Your task to perform on an android device: View the shopping cart on amazon. Add beats solo 3 to the cart on amazon, then select checkout. Image 0: 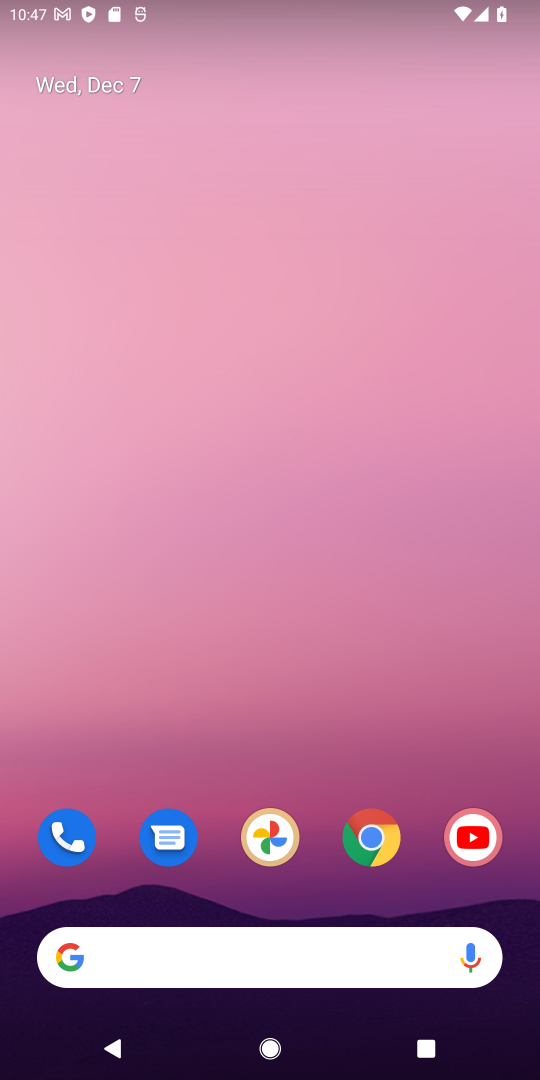
Step 0: click (378, 845)
Your task to perform on an android device: View the shopping cart on amazon. Add beats solo 3 to the cart on amazon, then select checkout. Image 1: 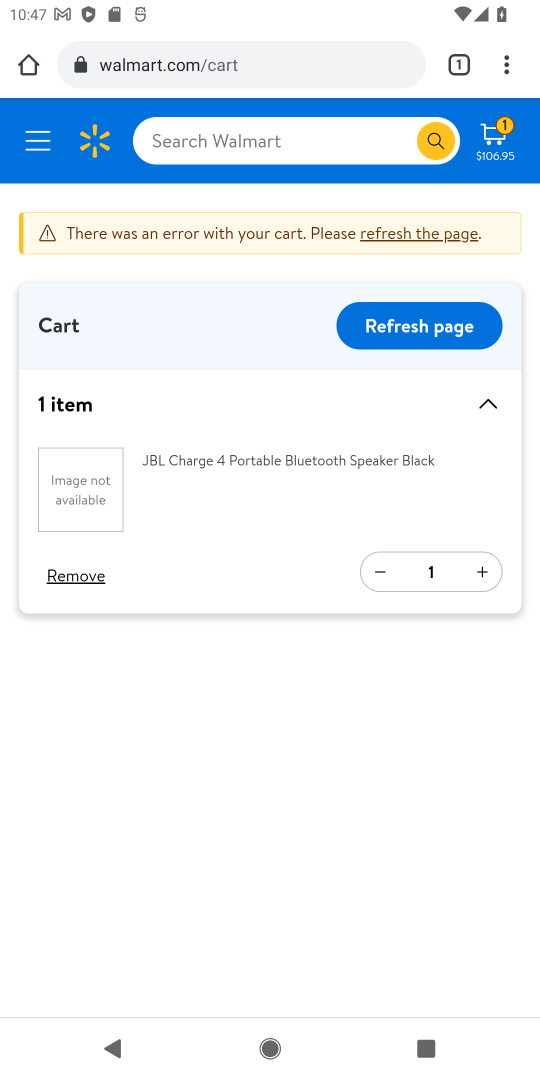
Step 1: click (361, 61)
Your task to perform on an android device: View the shopping cart on amazon. Add beats solo 3 to the cart on amazon, then select checkout. Image 2: 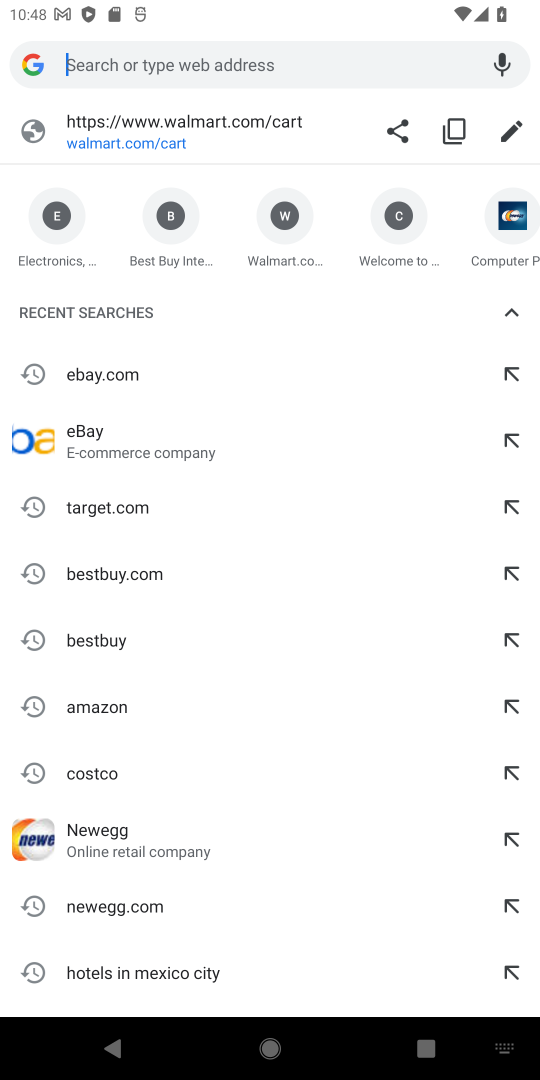
Step 2: press enter
Your task to perform on an android device: View the shopping cart on amazon. Add beats solo 3 to the cart on amazon, then select checkout. Image 3: 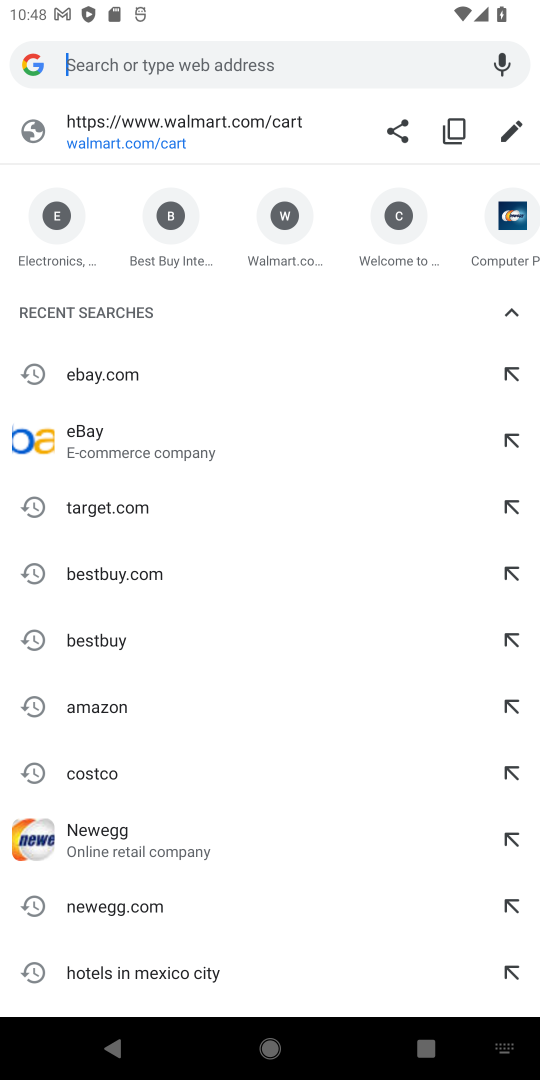
Step 3: type "amazon"
Your task to perform on an android device: View the shopping cart on amazon. Add beats solo 3 to the cart on amazon, then select checkout. Image 4: 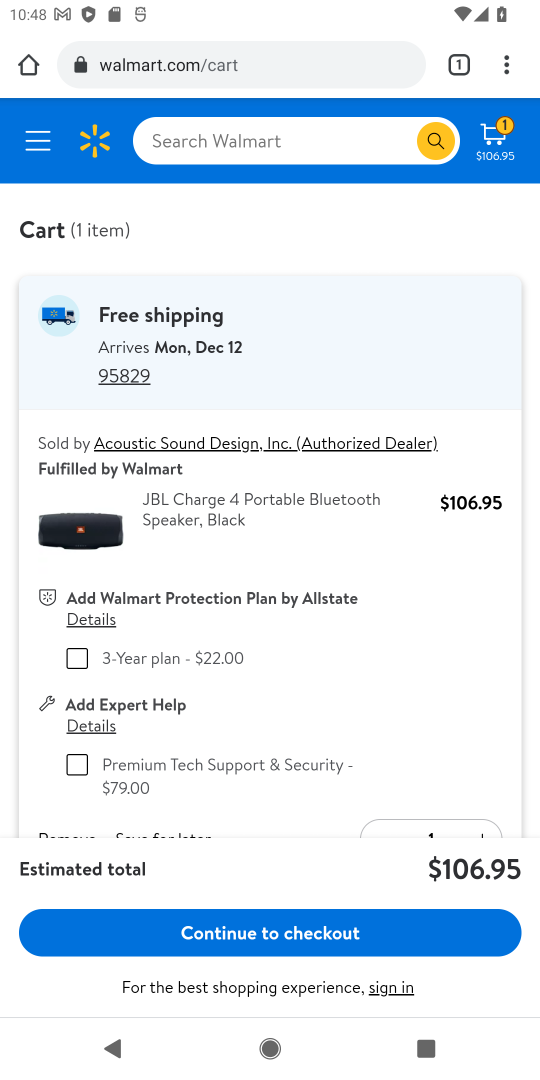
Step 4: click (313, 58)
Your task to perform on an android device: View the shopping cart on amazon. Add beats solo 3 to the cart on amazon, then select checkout. Image 5: 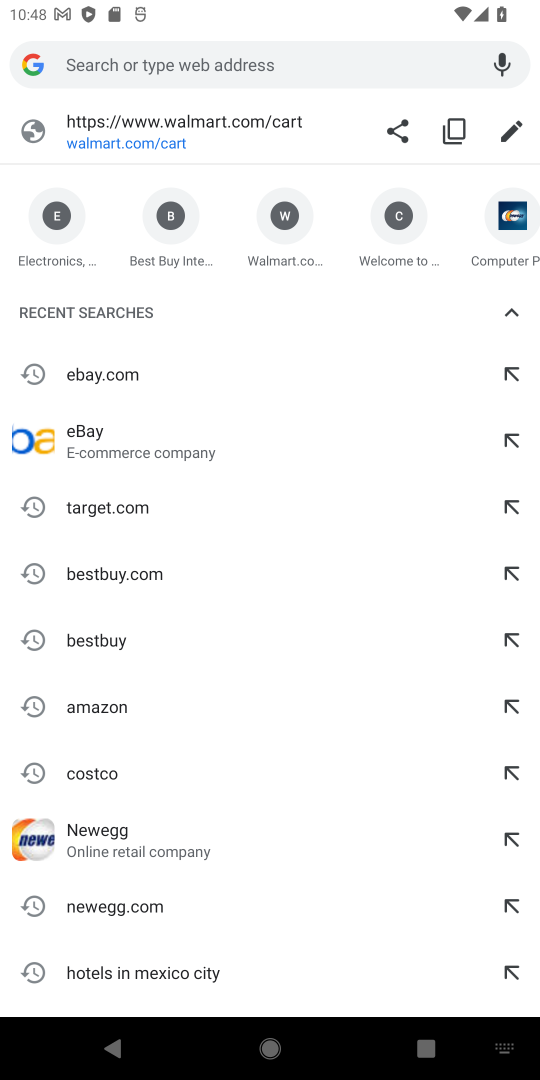
Step 5: type "amazon"
Your task to perform on an android device: View the shopping cart on amazon. Add beats solo 3 to the cart on amazon, then select checkout. Image 6: 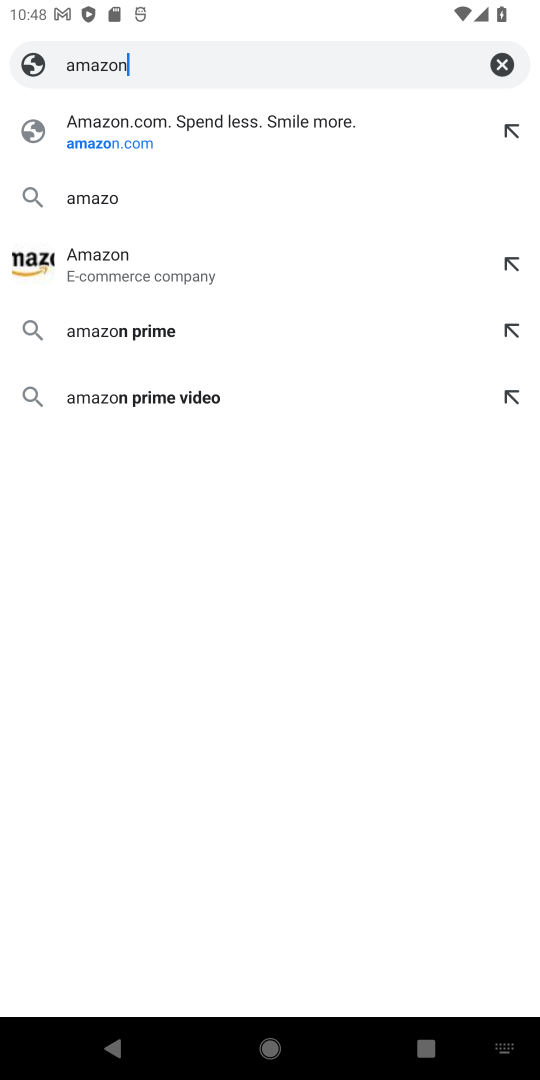
Step 6: press enter
Your task to perform on an android device: View the shopping cart on amazon. Add beats solo 3 to the cart on amazon, then select checkout. Image 7: 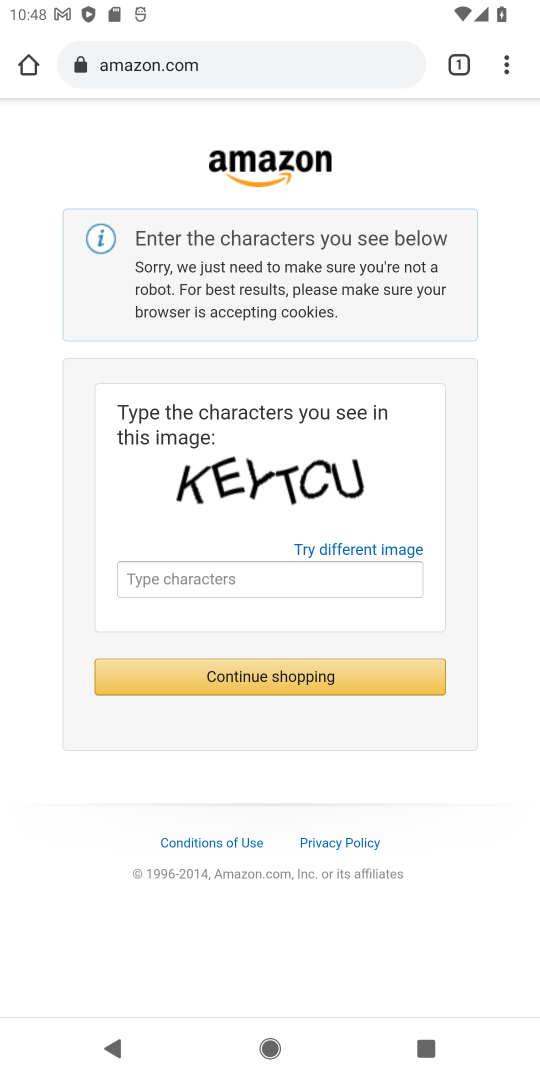
Step 7: press back button
Your task to perform on an android device: View the shopping cart on amazon. Add beats solo 3 to the cart on amazon, then select checkout. Image 8: 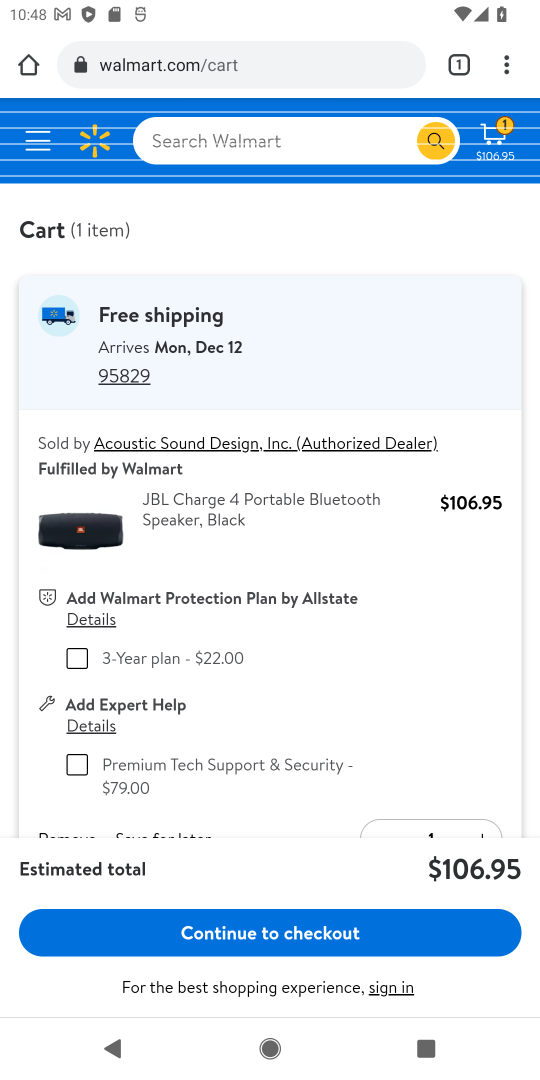
Step 8: click (263, 64)
Your task to perform on an android device: View the shopping cart on amazon. Add beats solo 3 to the cart on amazon, then select checkout. Image 9: 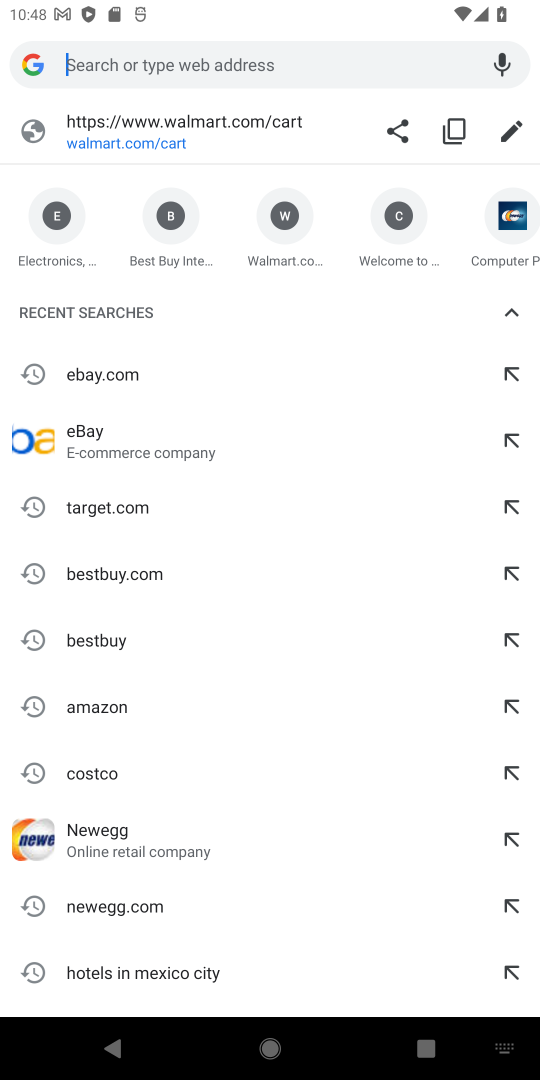
Step 9: click (105, 705)
Your task to perform on an android device: View the shopping cart on amazon. Add beats solo 3 to the cart on amazon, then select checkout. Image 10: 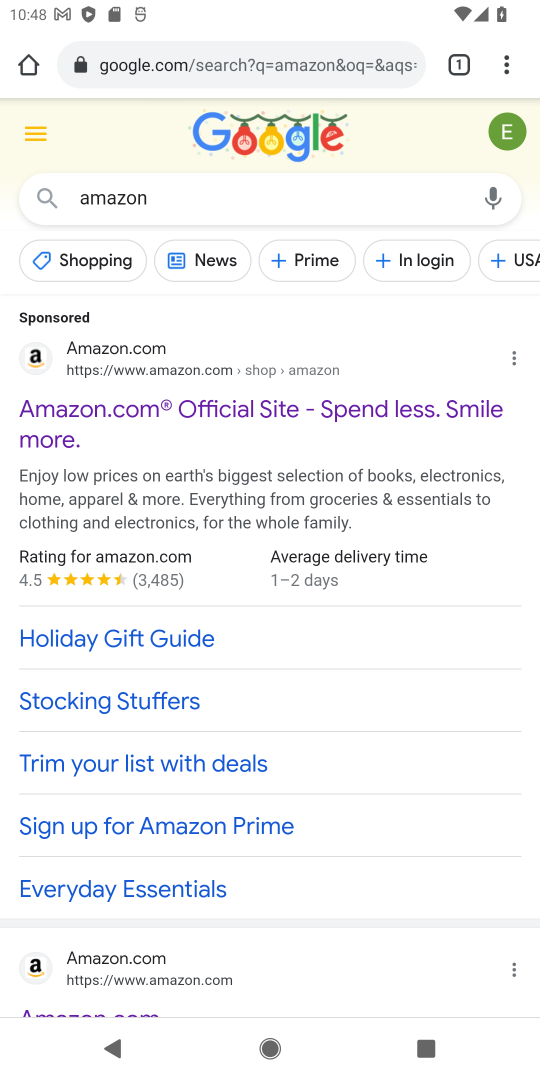
Step 10: click (170, 976)
Your task to perform on an android device: View the shopping cart on amazon. Add beats solo 3 to the cart on amazon, then select checkout. Image 11: 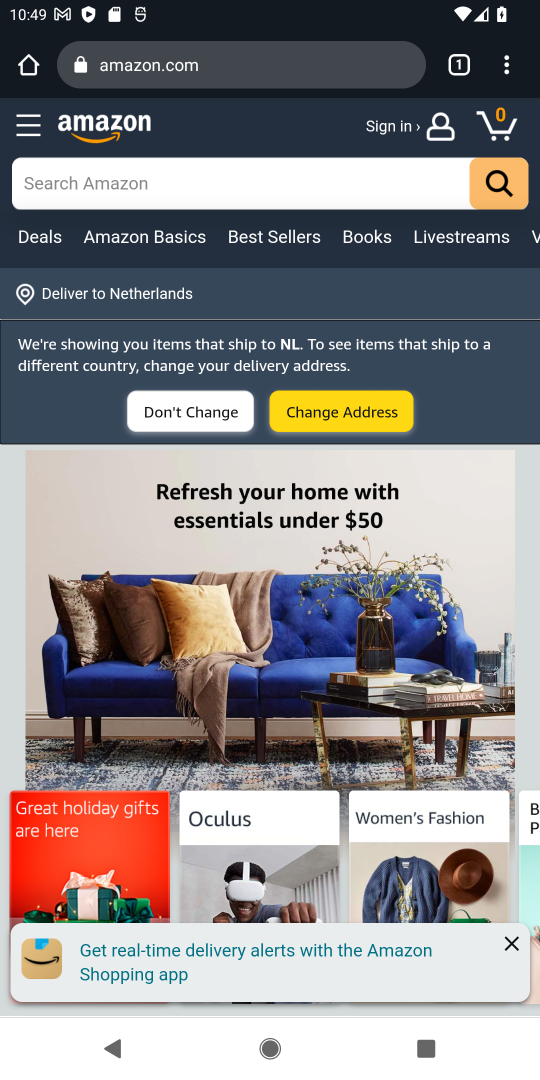
Step 11: click (308, 186)
Your task to perform on an android device: View the shopping cart on amazon. Add beats solo 3 to the cart on amazon, then select checkout. Image 12: 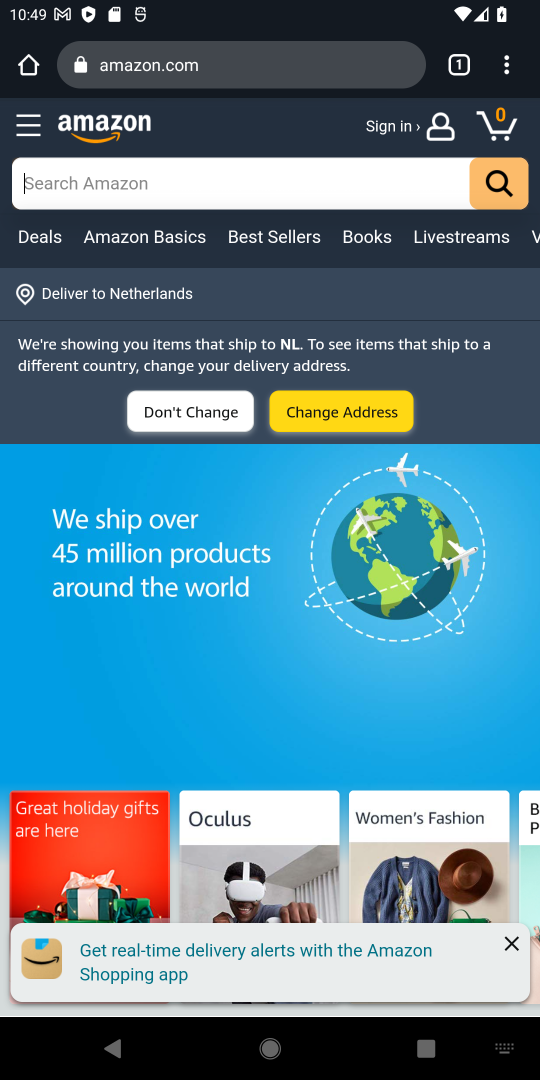
Step 12: press enter
Your task to perform on an android device: View the shopping cart on amazon. Add beats solo 3 to the cart on amazon, then select checkout. Image 13: 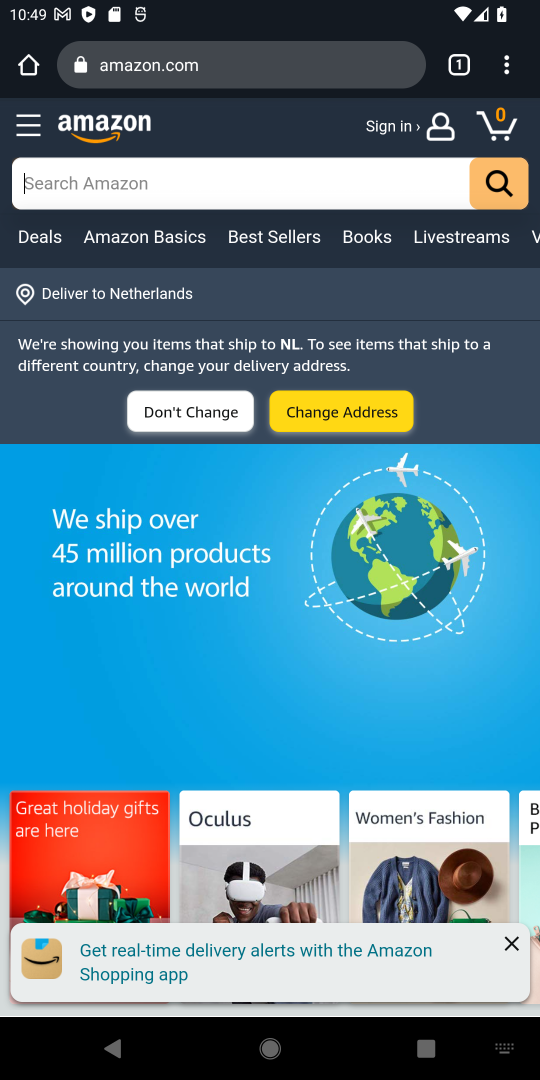
Step 13: type "beats solo 3"
Your task to perform on an android device: View the shopping cart on amazon. Add beats solo 3 to the cart on amazon, then select checkout. Image 14: 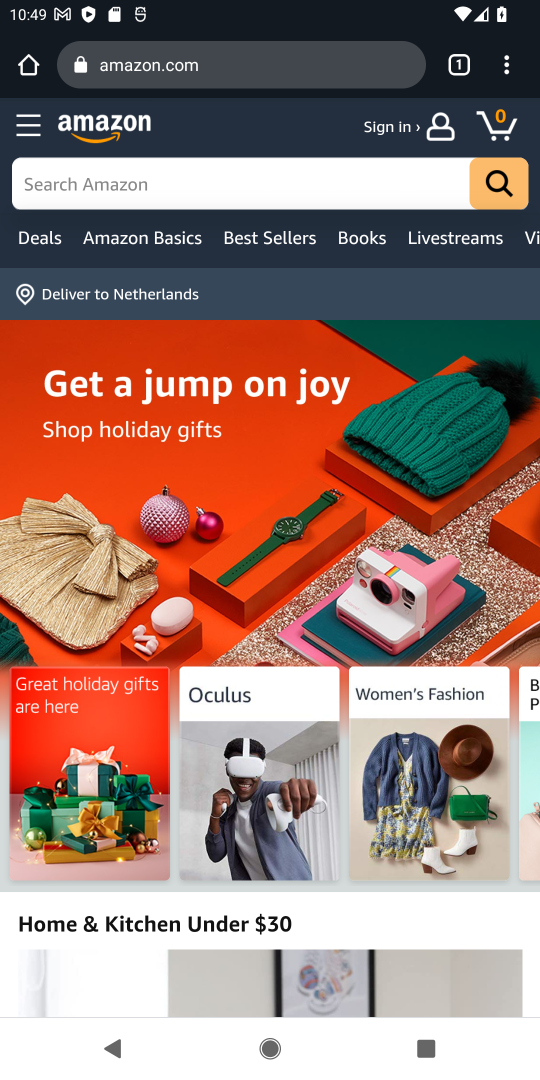
Step 14: click (330, 180)
Your task to perform on an android device: View the shopping cart on amazon. Add beats solo 3 to the cart on amazon, then select checkout. Image 15: 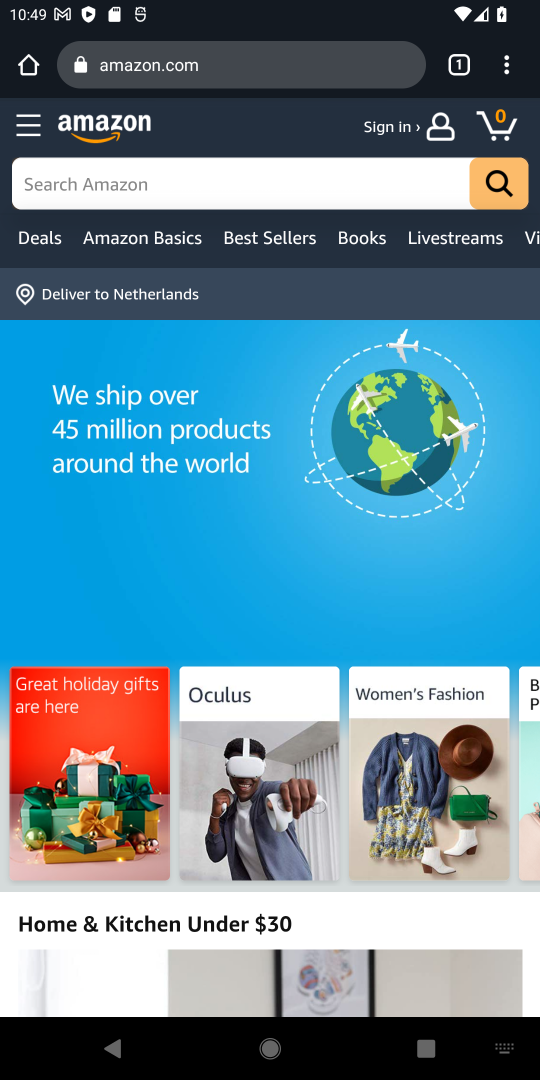
Step 15: type "beats solo 3"
Your task to perform on an android device: View the shopping cart on amazon. Add beats solo 3 to the cart on amazon, then select checkout. Image 16: 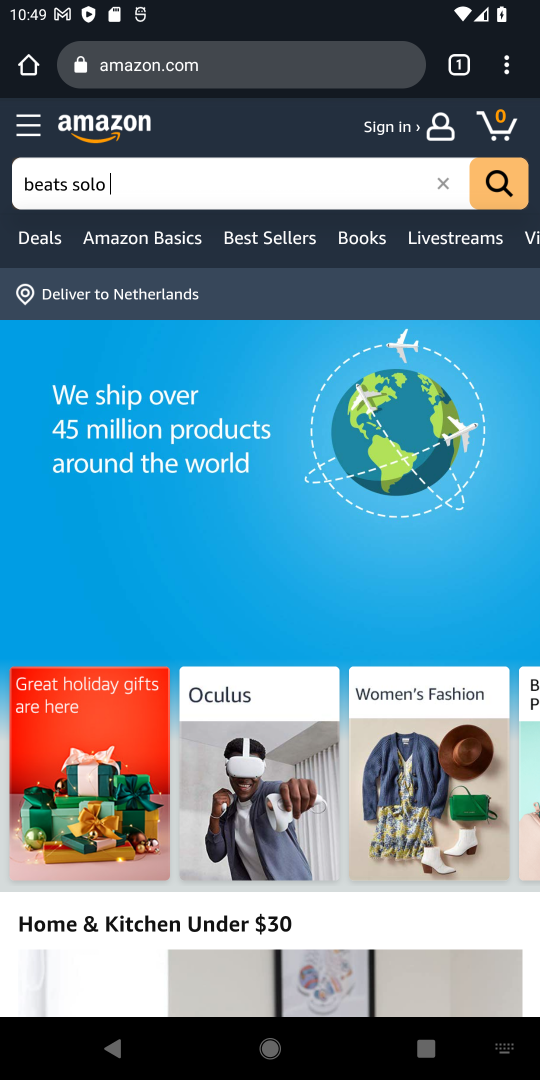
Step 16: press enter
Your task to perform on an android device: View the shopping cart on amazon. Add beats solo 3 to the cart on amazon, then select checkout. Image 17: 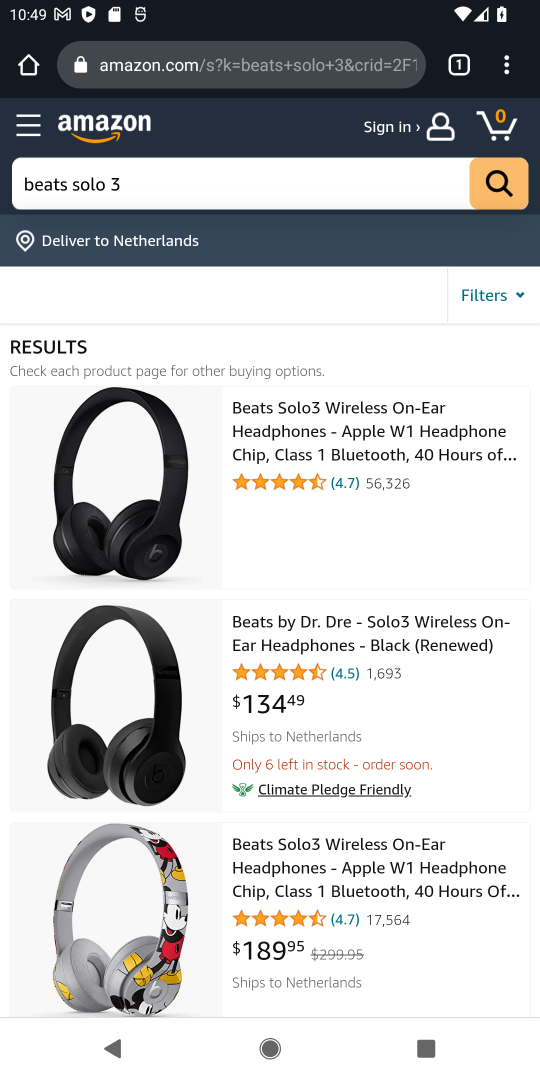
Step 17: click (95, 471)
Your task to perform on an android device: View the shopping cart on amazon. Add beats solo 3 to the cart on amazon, then select checkout. Image 18: 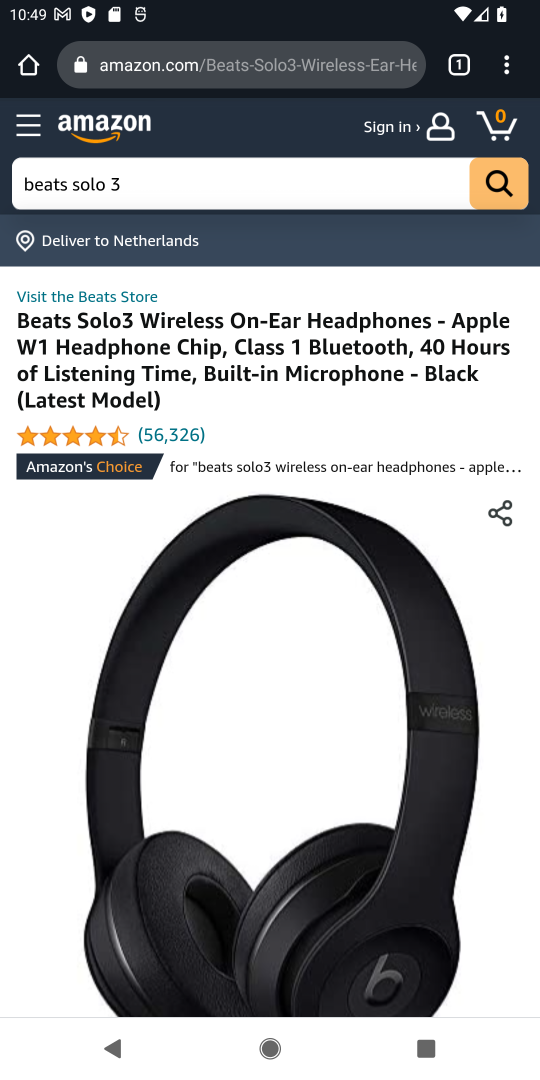
Step 18: drag from (357, 792) to (476, 166)
Your task to perform on an android device: View the shopping cart on amazon. Add beats solo 3 to the cart on amazon, then select checkout. Image 19: 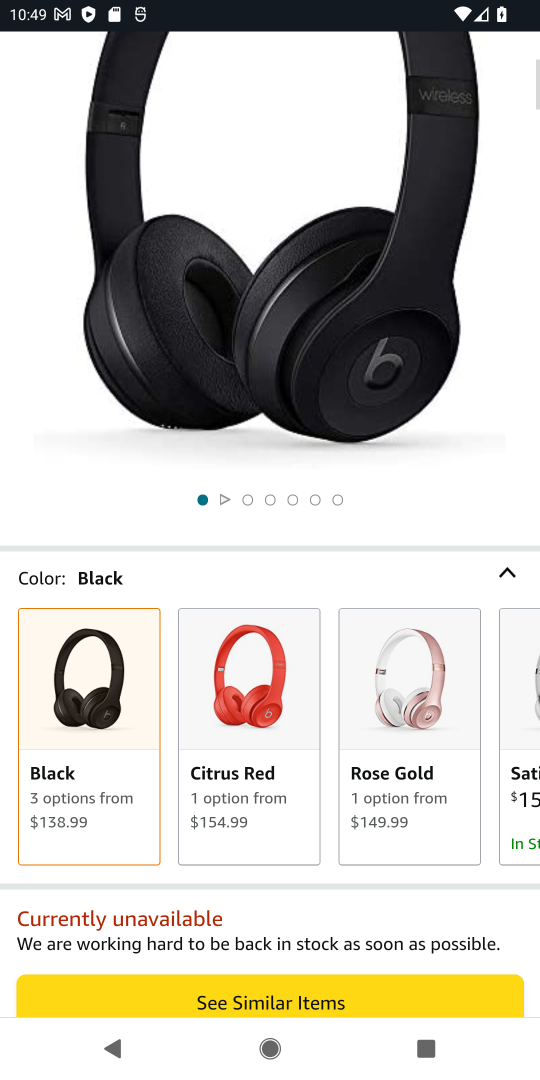
Step 19: drag from (340, 922) to (371, 486)
Your task to perform on an android device: View the shopping cart on amazon. Add beats solo 3 to the cart on amazon, then select checkout. Image 20: 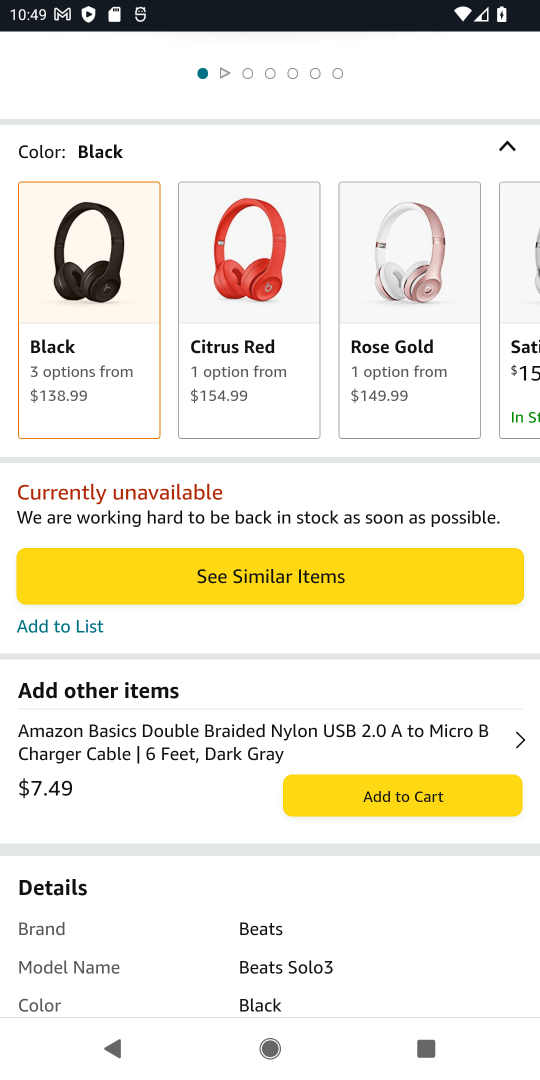
Step 20: press back button
Your task to perform on an android device: View the shopping cart on amazon. Add beats solo 3 to the cart on amazon, then select checkout. Image 21: 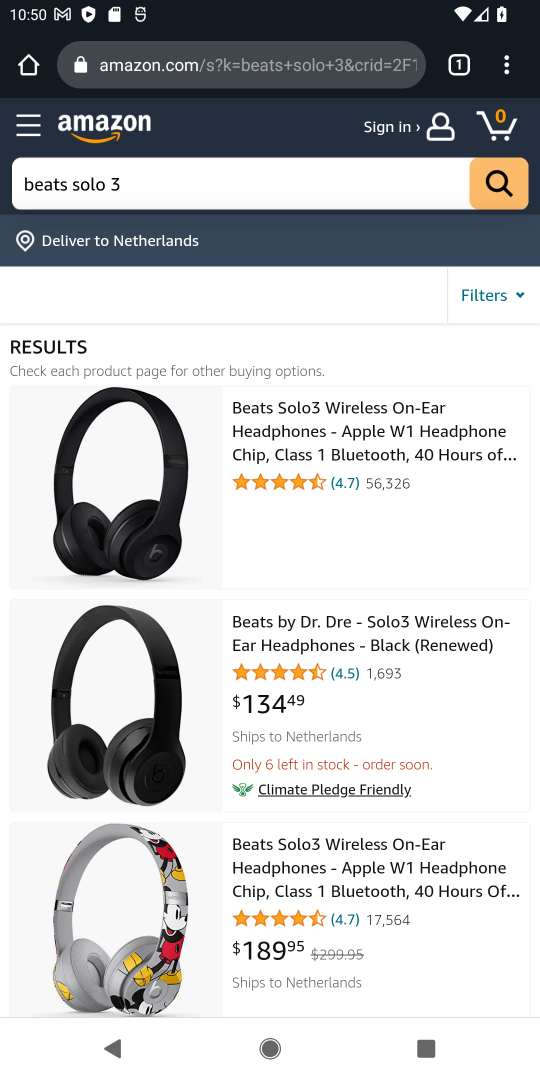
Step 21: click (102, 922)
Your task to perform on an android device: View the shopping cart on amazon. Add beats solo 3 to the cart on amazon, then select checkout. Image 22: 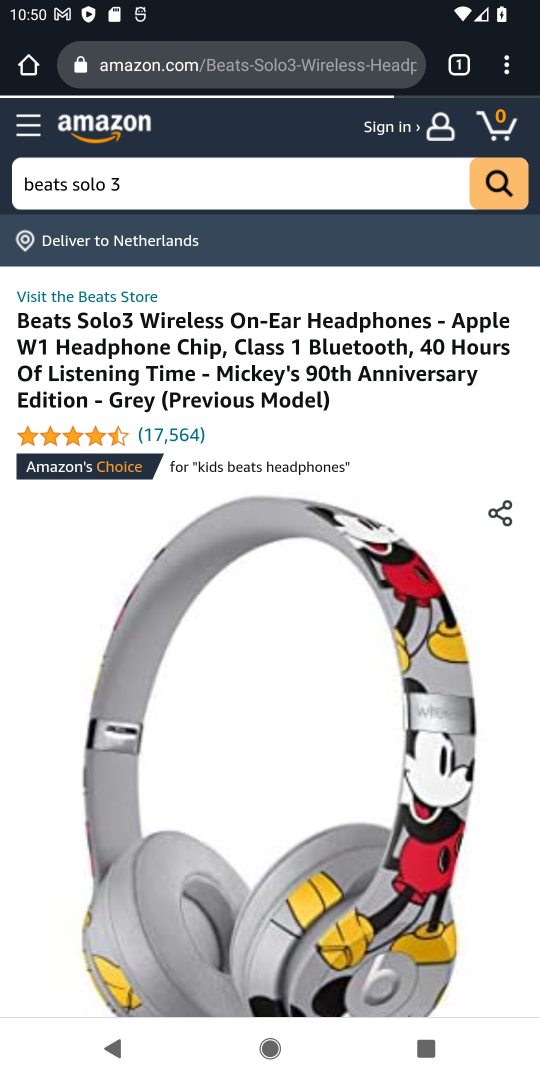
Step 22: drag from (359, 563) to (469, 264)
Your task to perform on an android device: View the shopping cart on amazon. Add beats solo 3 to the cart on amazon, then select checkout. Image 23: 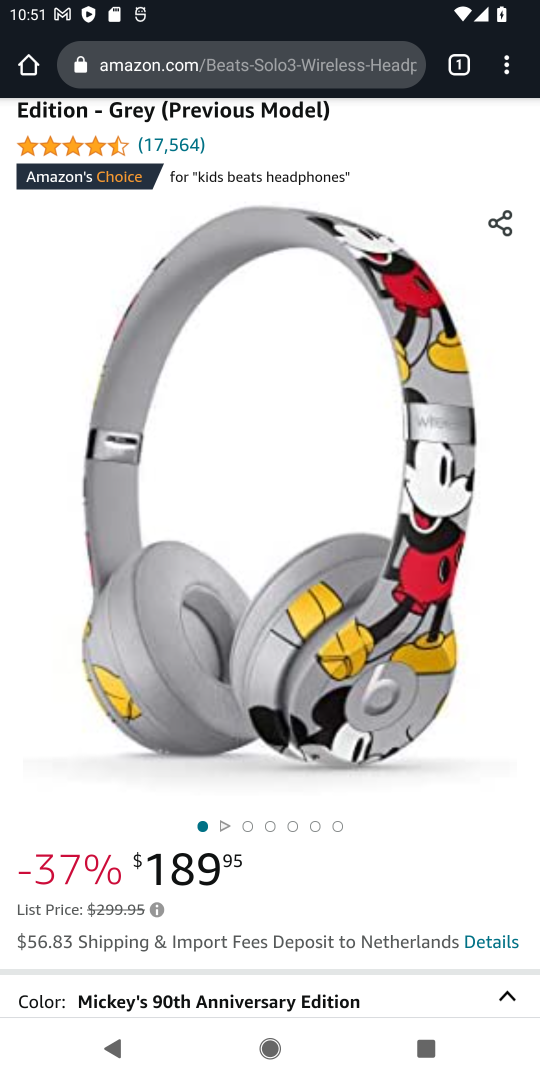
Step 23: drag from (354, 892) to (404, 249)
Your task to perform on an android device: View the shopping cart on amazon. Add beats solo 3 to the cart on amazon, then select checkout. Image 24: 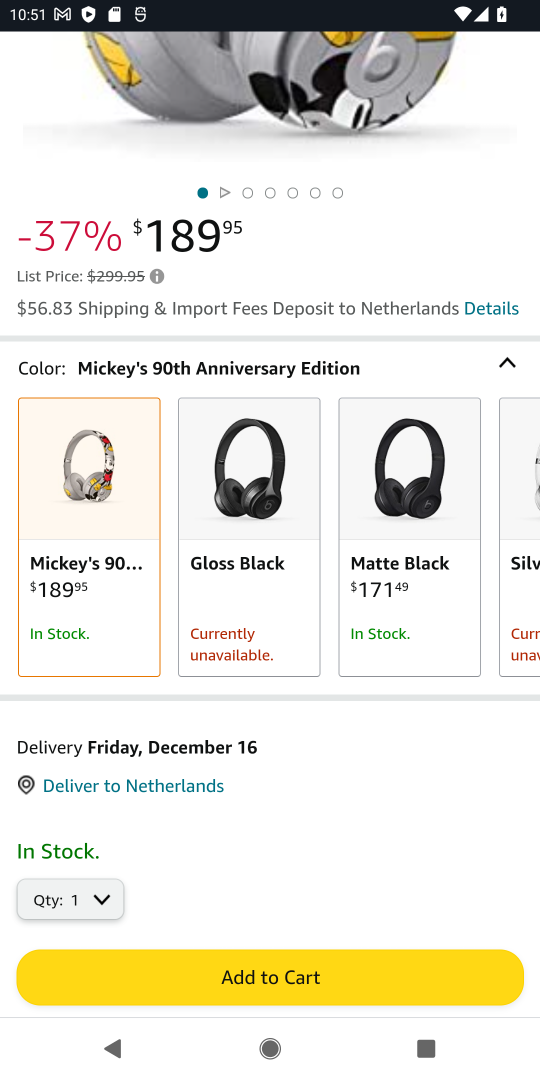
Step 24: click (372, 976)
Your task to perform on an android device: View the shopping cart on amazon. Add beats solo 3 to the cart on amazon, then select checkout. Image 25: 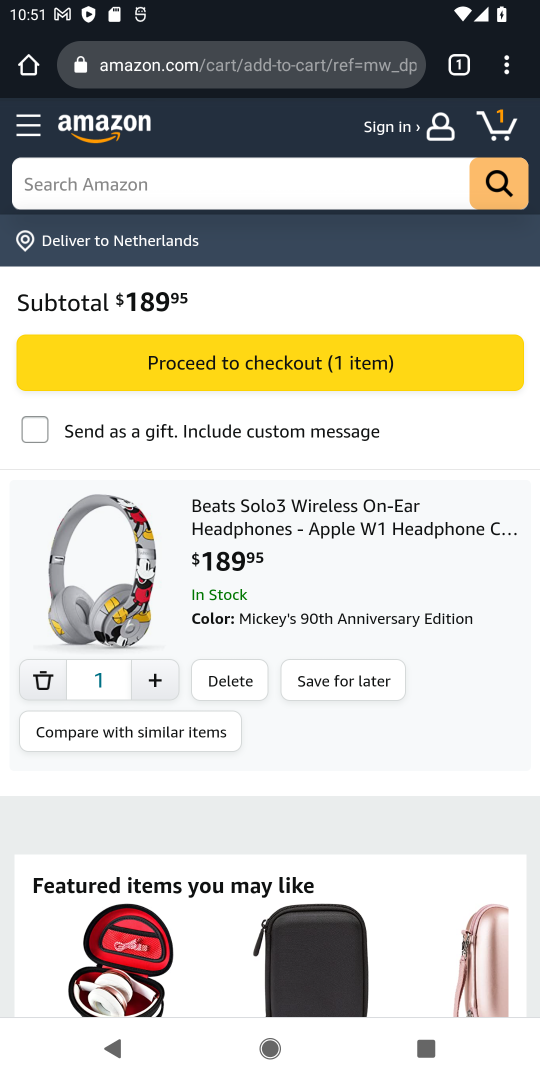
Step 25: click (290, 358)
Your task to perform on an android device: View the shopping cart on amazon. Add beats solo 3 to the cart on amazon, then select checkout. Image 26: 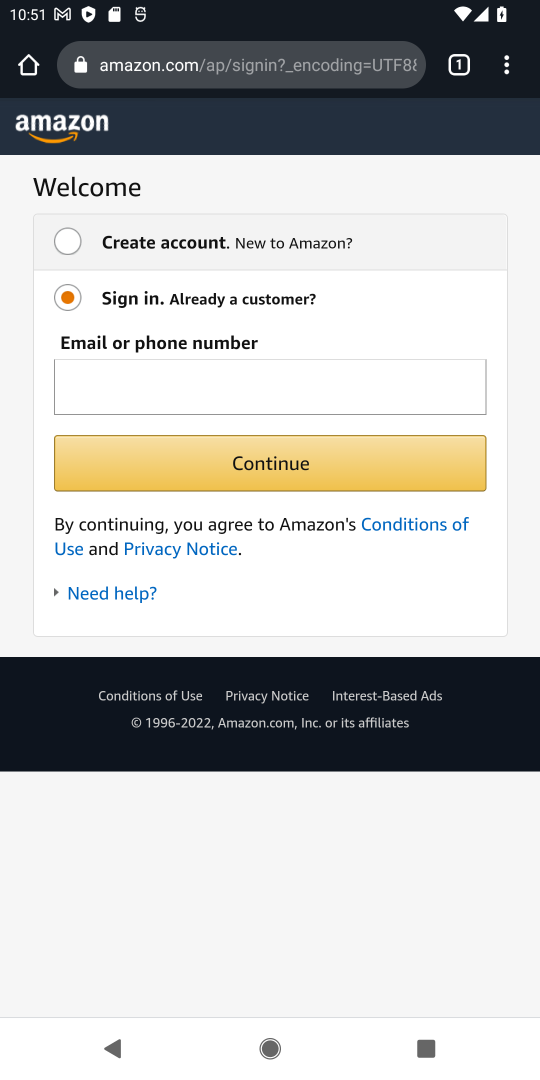
Step 26: task complete